Your task to perform on an android device: turn off sleep mode Image 0: 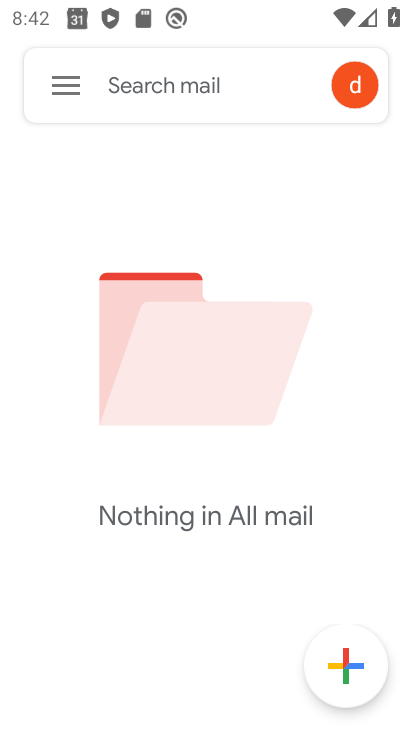
Step 0: press back button
Your task to perform on an android device: turn off sleep mode Image 1: 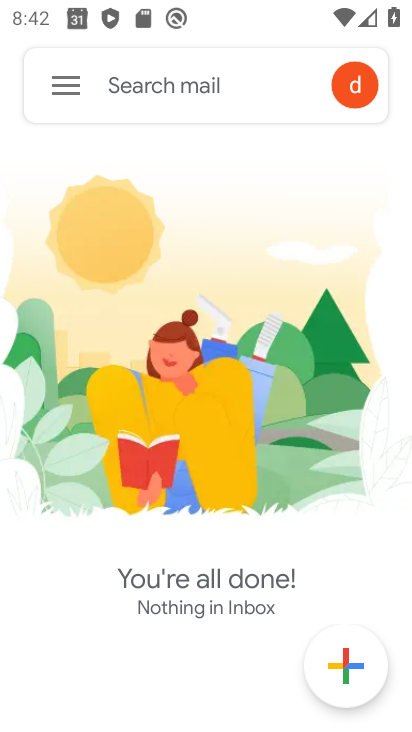
Step 1: press back button
Your task to perform on an android device: turn off sleep mode Image 2: 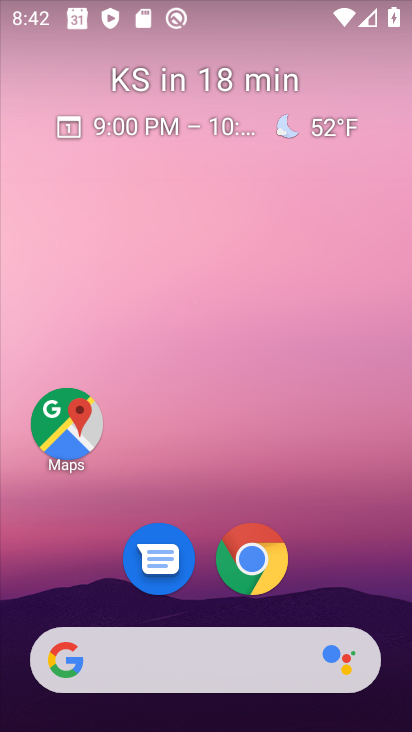
Step 2: drag from (385, 621) to (290, 15)
Your task to perform on an android device: turn off sleep mode Image 3: 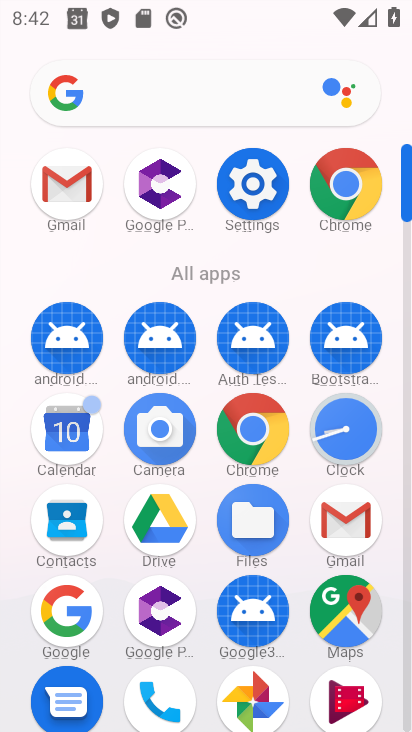
Step 3: drag from (12, 550) to (14, 162)
Your task to perform on an android device: turn off sleep mode Image 4: 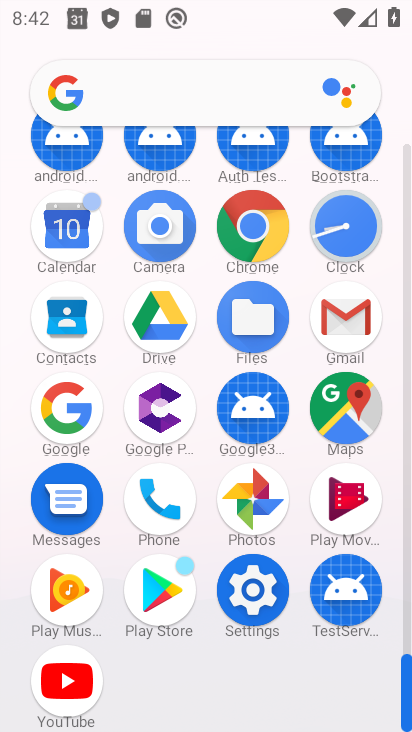
Step 4: click (251, 585)
Your task to perform on an android device: turn off sleep mode Image 5: 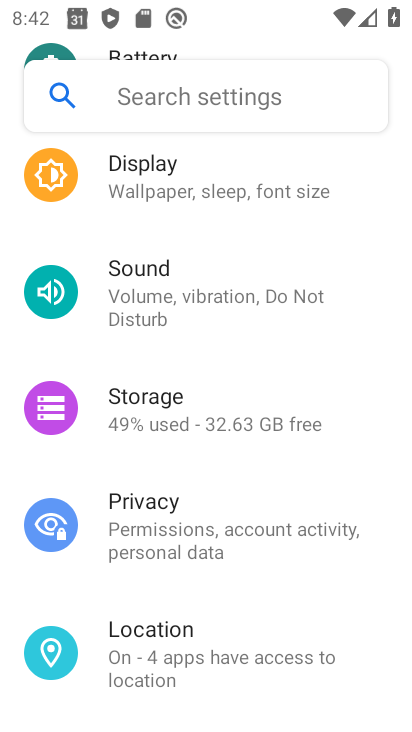
Step 5: drag from (256, 204) to (277, 582)
Your task to perform on an android device: turn off sleep mode Image 6: 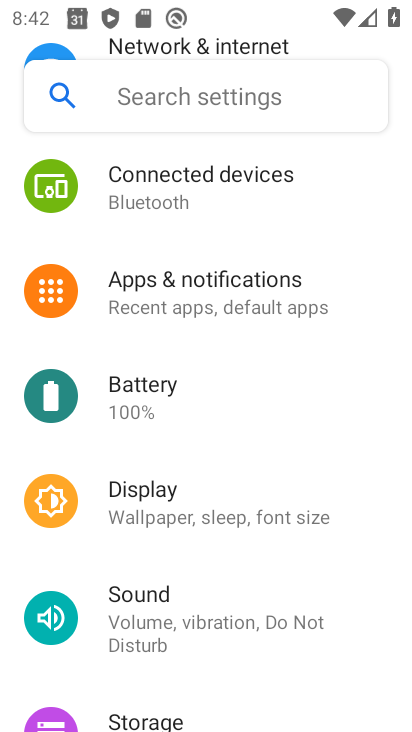
Step 6: drag from (271, 608) to (262, 229)
Your task to perform on an android device: turn off sleep mode Image 7: 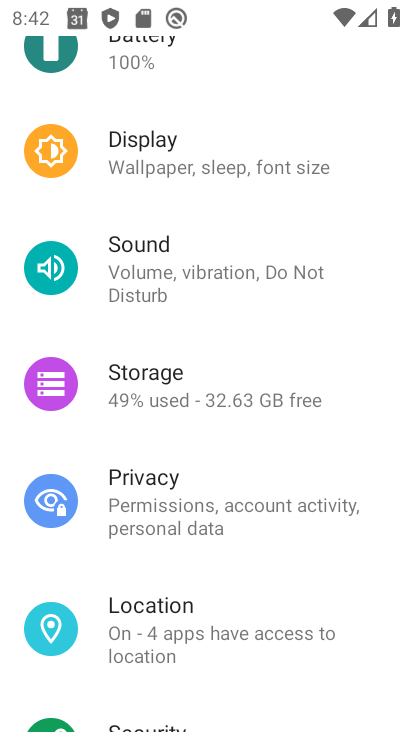
Step 7: drag from (241, 141) to (235, 476)
Your task to perform on an android device: turn off sleep mode Image 8: 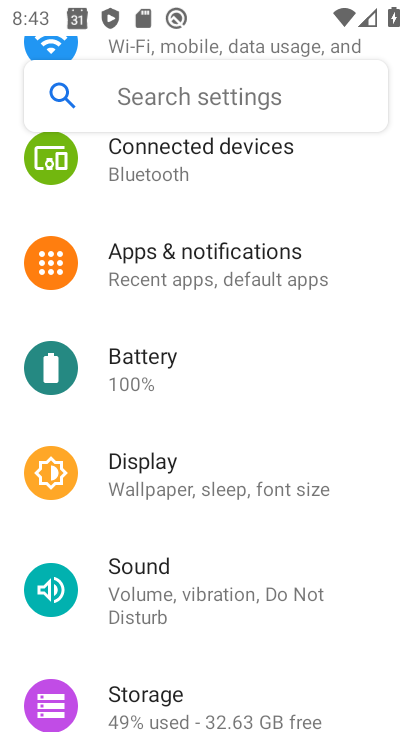
Step 8: drag from (236, 266) to (226, 544)
Your task to perform on an android device: turn off sleep mode Image 9: 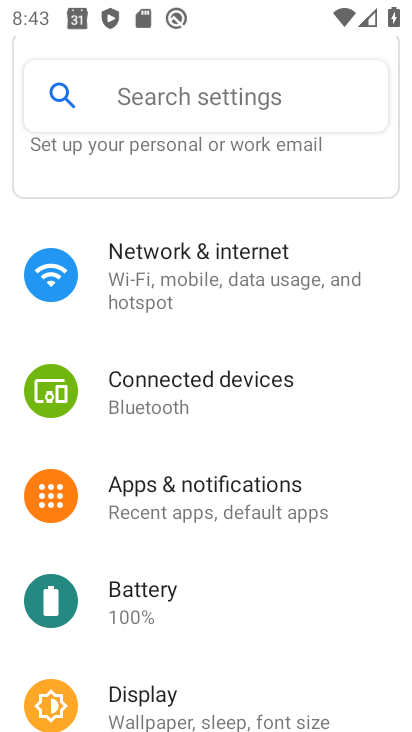
Step 9: drag from (187, 587) to (224, 225)
Your task to perform on an android device: turn off sleep mode Image 10: 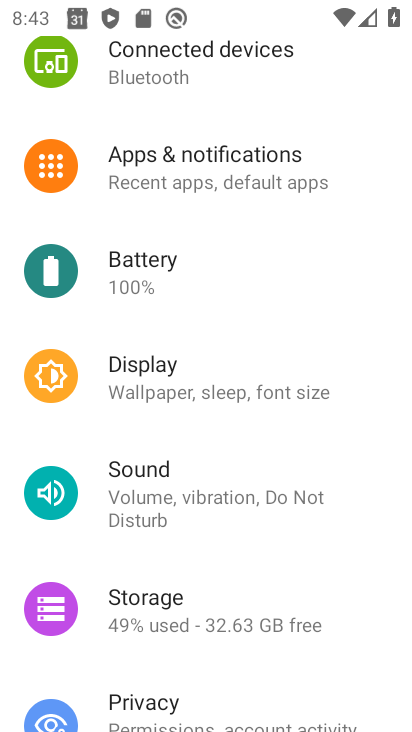
Step 10: drag from (225, 594) to (209, 214)
Your task to perform on an android device: turn off sleep mode Image 11: 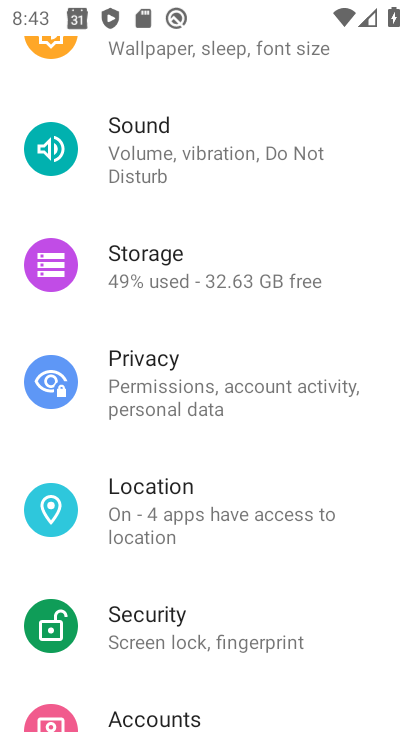
Step 11: drag from (244, 530) to (257, 202)
Your task to perform on an android device: turn off sleep mode Image 12: 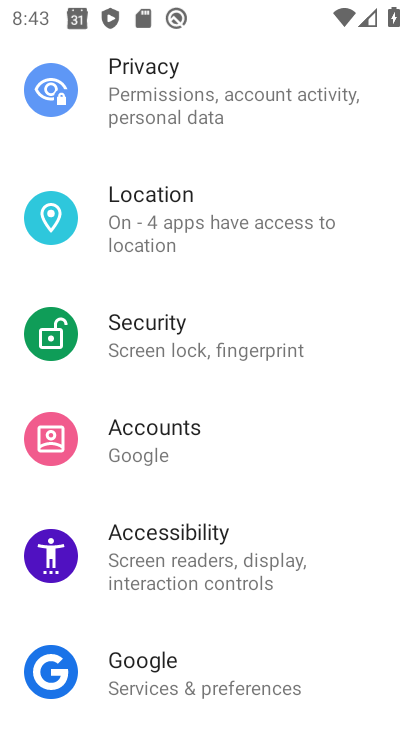
Step 12: drag from (266, 171) to (262, 619)
Your task to perform on an android device: turn off sleep mode Image 13: 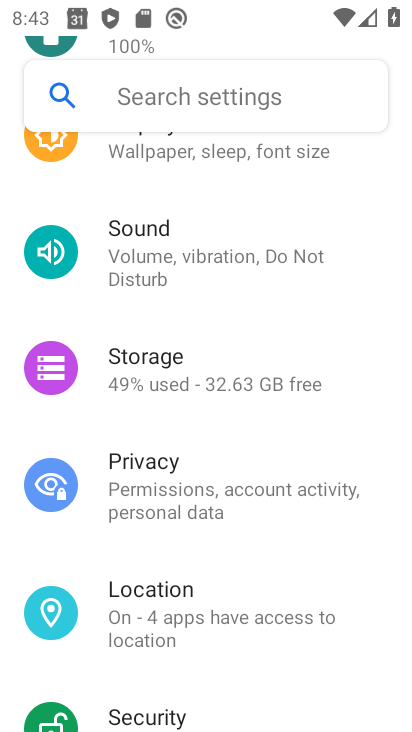
Step 13: drag from (231, 244) to (252, 553)
Your task to perform on an android device: turn off sleep mode Image 14: 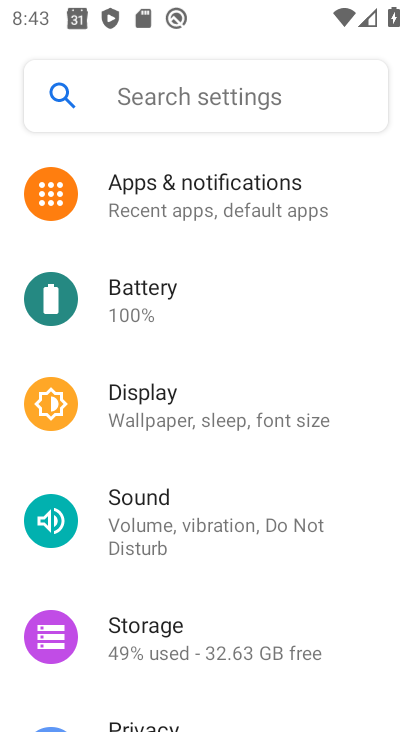
Step 14: drag from (238, 271) to (261, 582)
Your task to perform on an android device: turn off sleep mode Image 15: 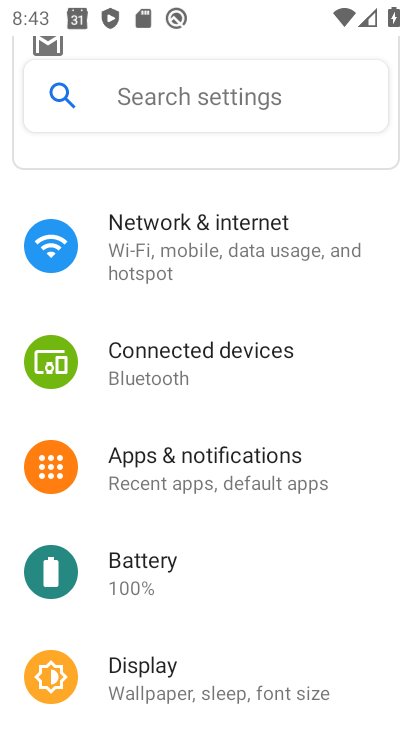
Step 15: click (209, 667)
Your task to perform on an android device: turn off sleep mode Image 16: 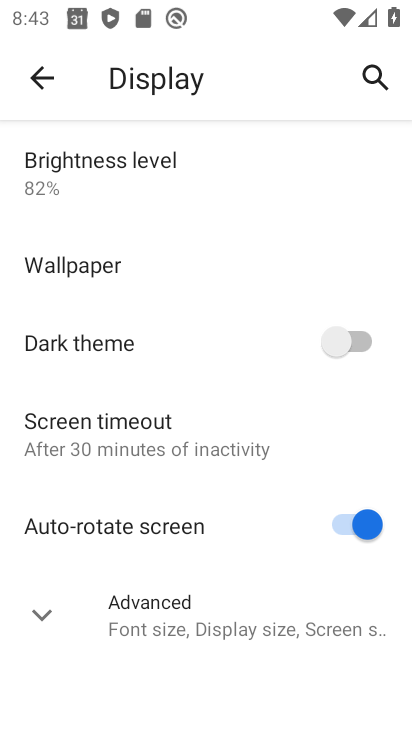
Step 16: click (46, 607)
Your task to perform on an android device: turn off sleep mode Image 17: 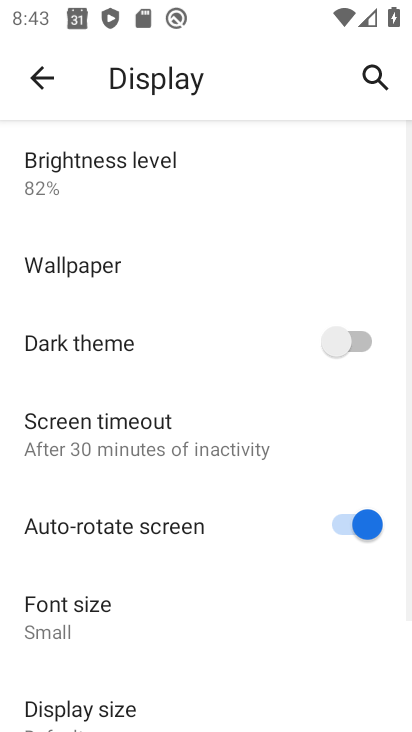
Step 17: task complete